Your task to perform on an android device: Open Youtube and go to the subscriptions tab Image 0: 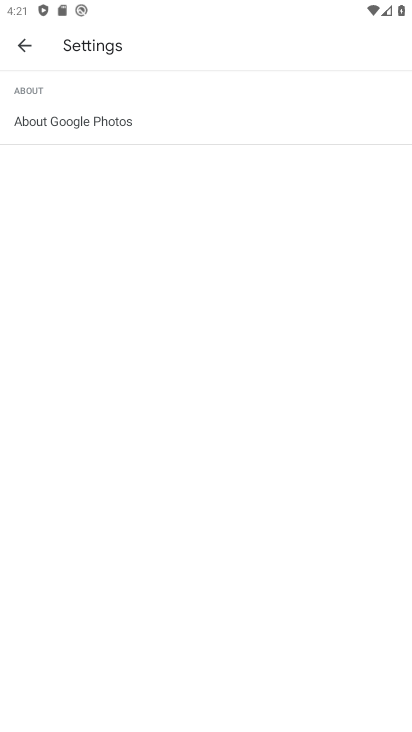
Step 0: press back button
Your task to perform on an android device: Open Youtube and go to the subscriptions tab Image 1: 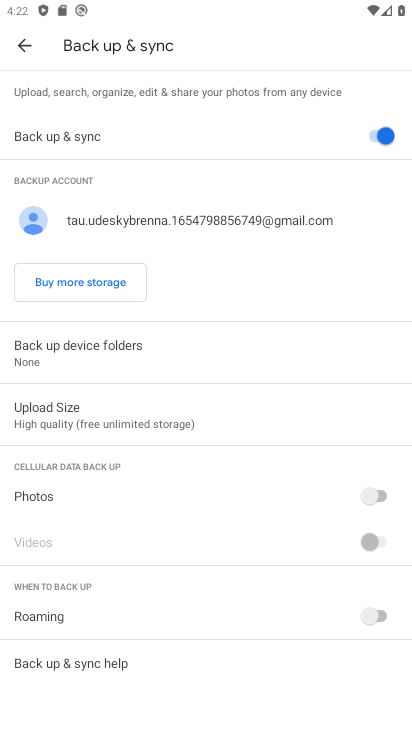
Step 1: press back button
Your task to perform on an android device: Open Youtube and go to the subscriptions tab Image 2: 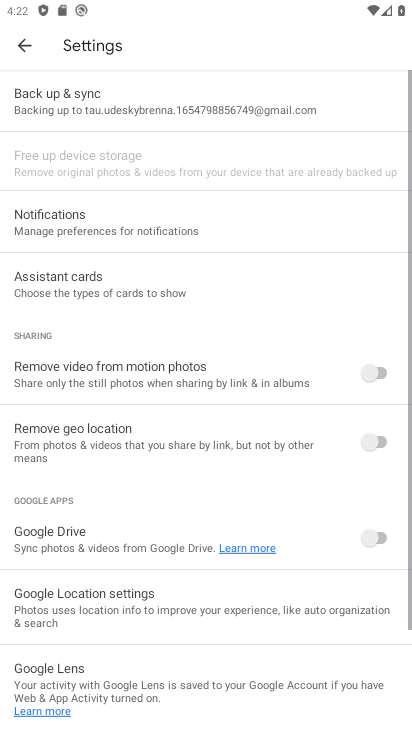
Step 2: press back button
Your task to perform on an android device: Open Youtube and go to the subscriptions tab Image 3: 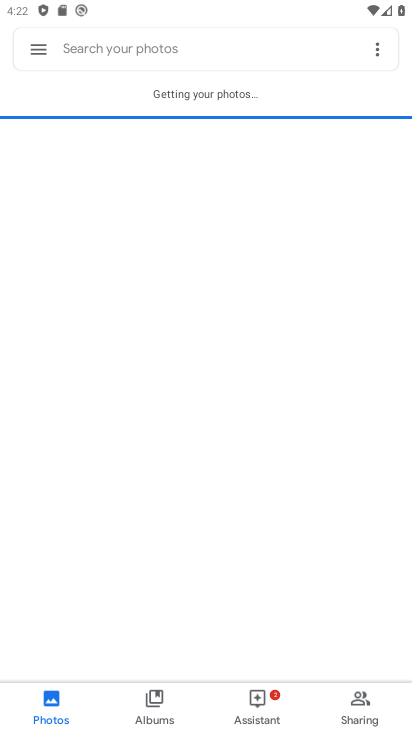
Step 3: press home button
Your task to perform on an android device: Open Youtube and go to the subscriptions tab Image 4: 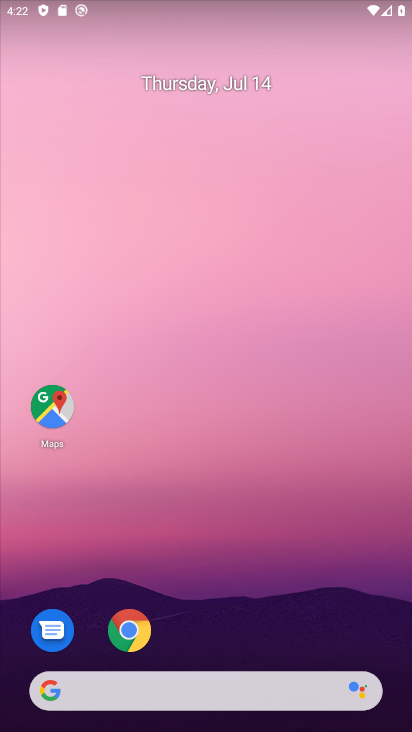
Step 4: drag from (199, 657) to (287, 13)
Your task to perform on an android device: Open Youtube and go to the subscriptions tab Image 5: 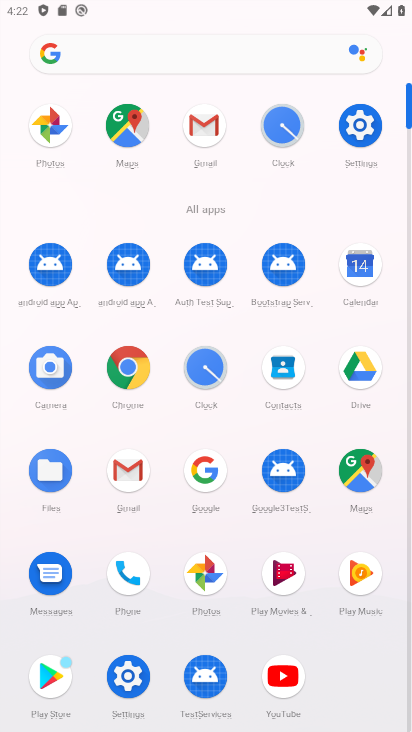
Step 5: click (287, 678)
Your task to perform on an android device: Open Youtube and go to the subscriptions tab Image 6: 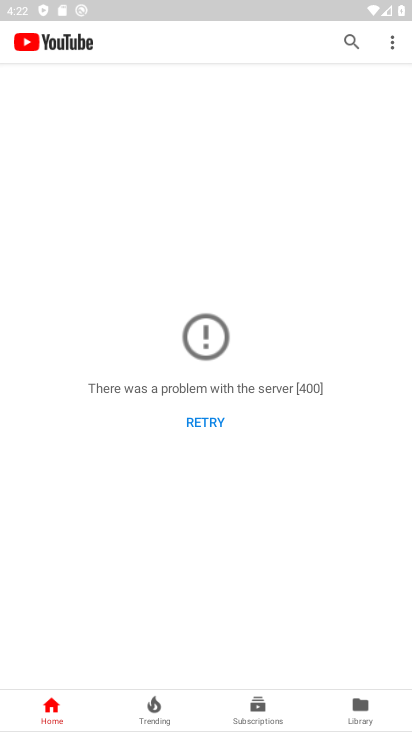
Step 6: click (254, 694)
Your task to perform on an android device: Open Youtube and go to the subscriptions tab Image 7: 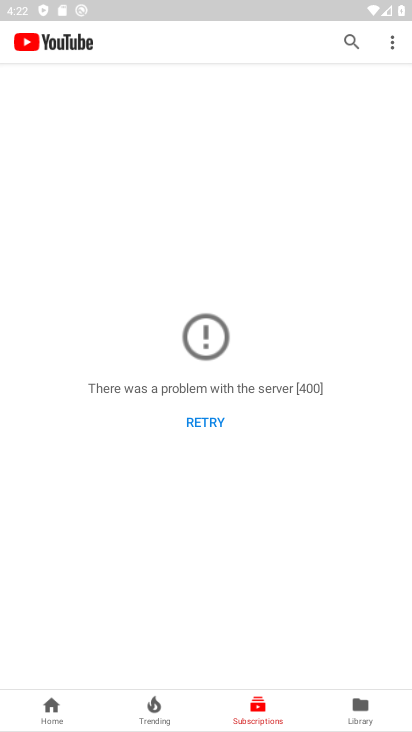
Step 7: task complete